Your task to perform on an android device: Open Google Image 0: 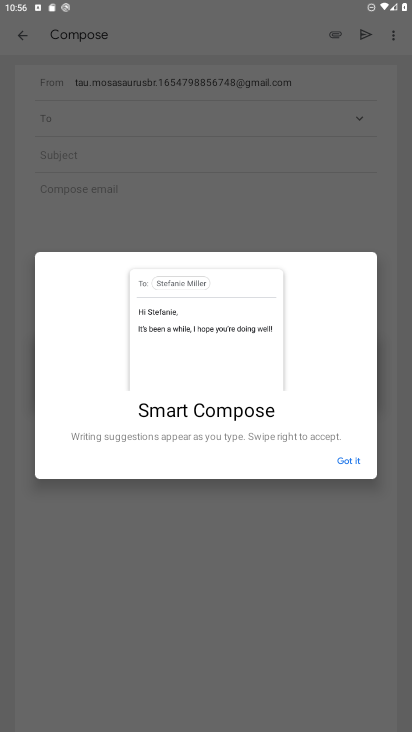
Step 0: press home button
Your task to perform on an android device: Open Google Image 1: 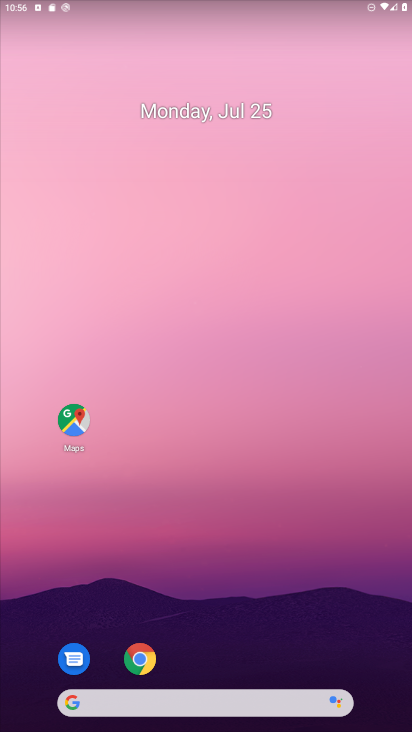
Step 1: drag from (197, 633) to (215, 291)
Your task to perform on an android device: Open Google Image 2: 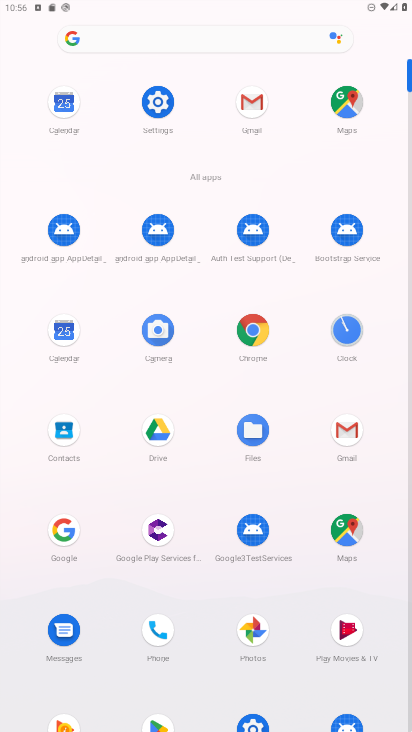
Step 2: click (81, 538)
Your task to perform on an android device: Open Google Image 3: 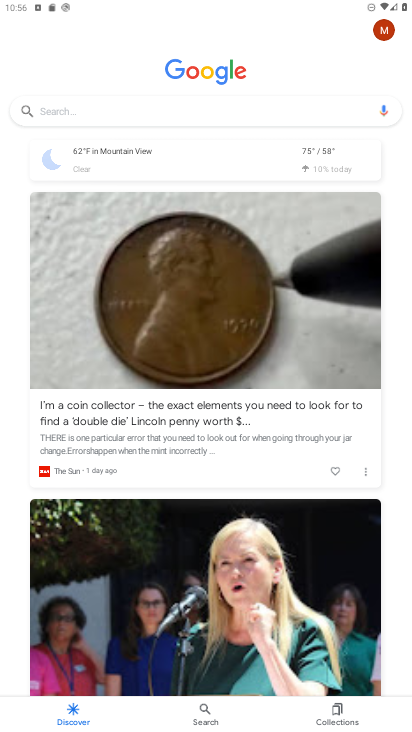
Step 3: task complete